Your task to perform on an android device: uninstall "Firefox Browser" Image 0: 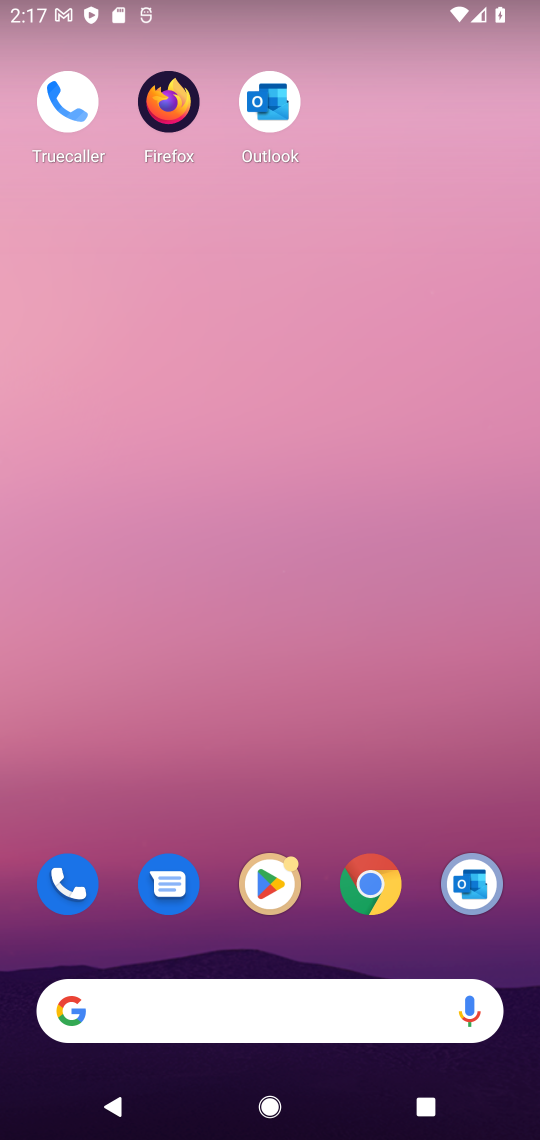
Step 0: click (265, 873)
Your task to perform on an android device: uninstall "Firefox Browser" Image 1: 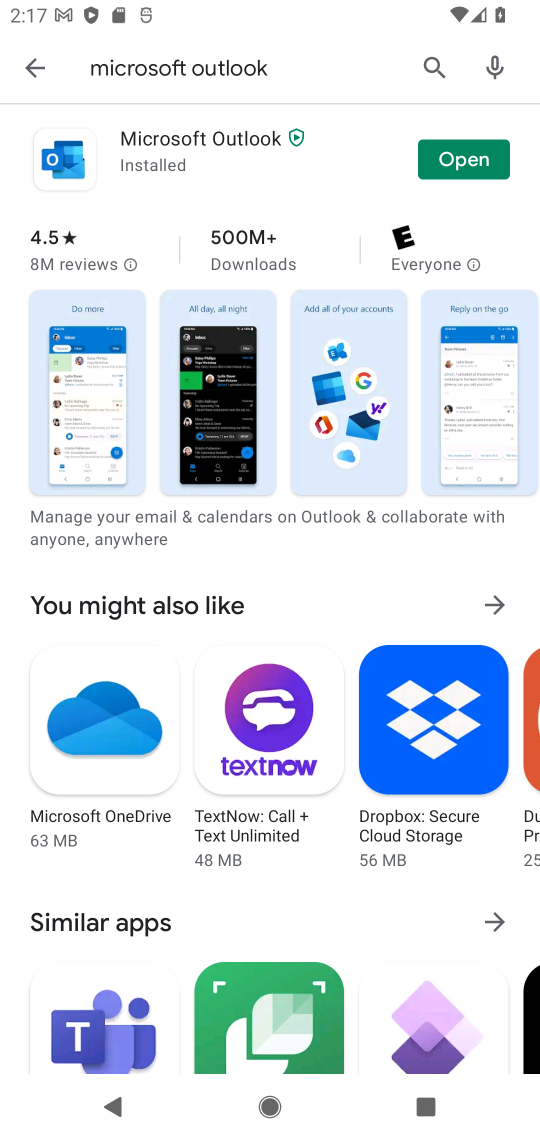
Step 1: click (429, 61)
Your task to perform on an android device: uninstall "Firefox Browser" Image 2: 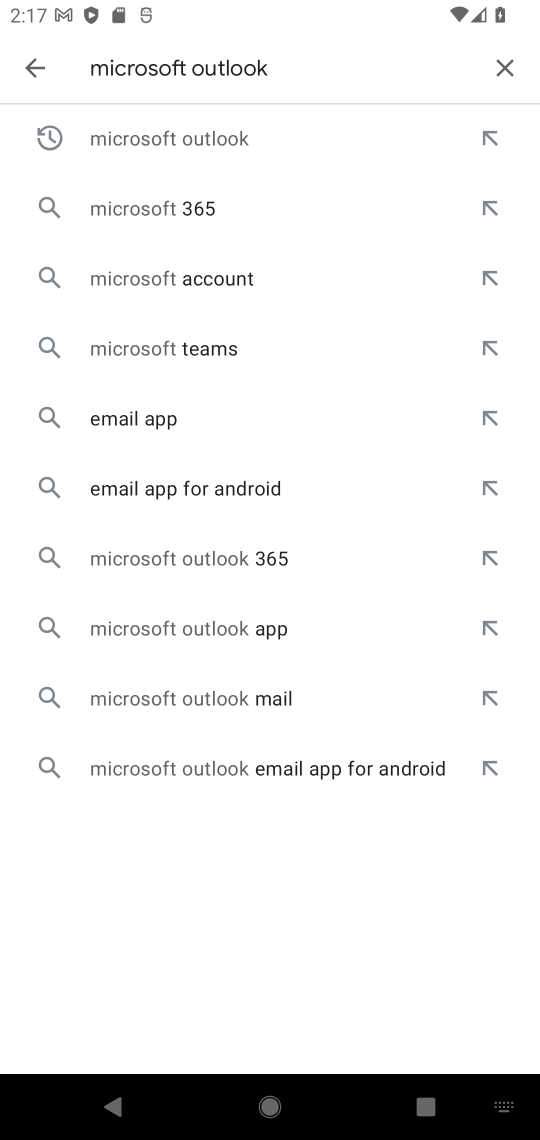
Step 2: click (509, 68)
Your task to perform on an android device: uninstall "Firefox Browser" Image 3: 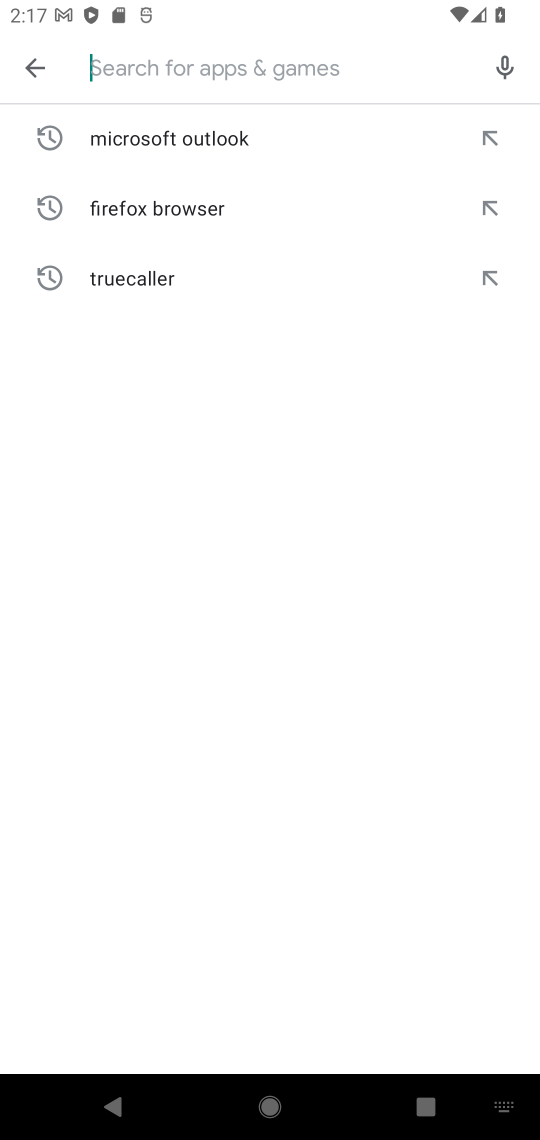
Step 3: click (192, 200)
Your task to perform on an android device: uninstall "Firefox Browser" Image 4: 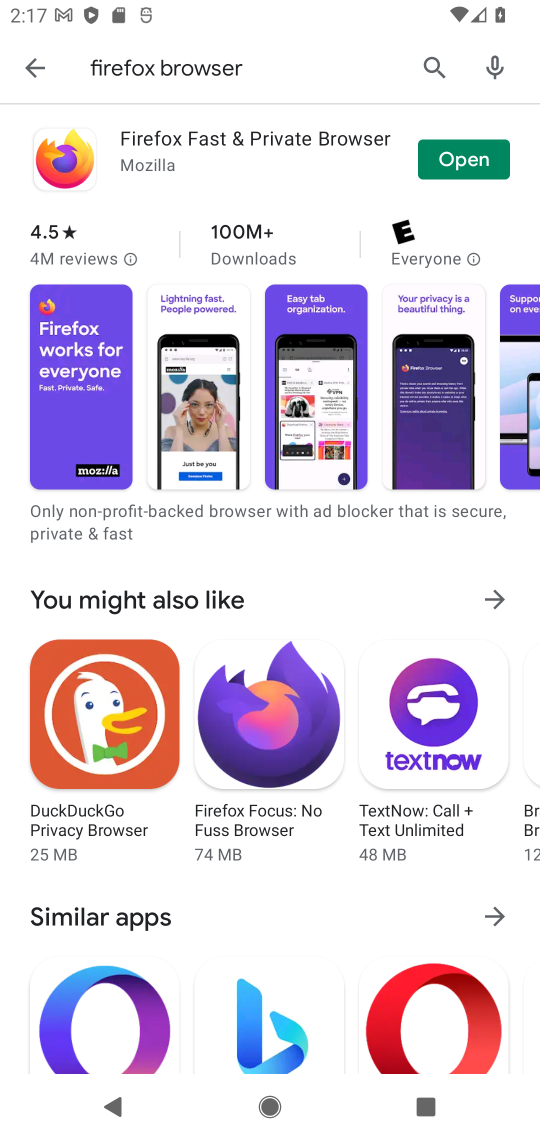
Step 4: click (217, 126)
Your task to perform on an android device: uninstall "Firefox Browser" Image 5: 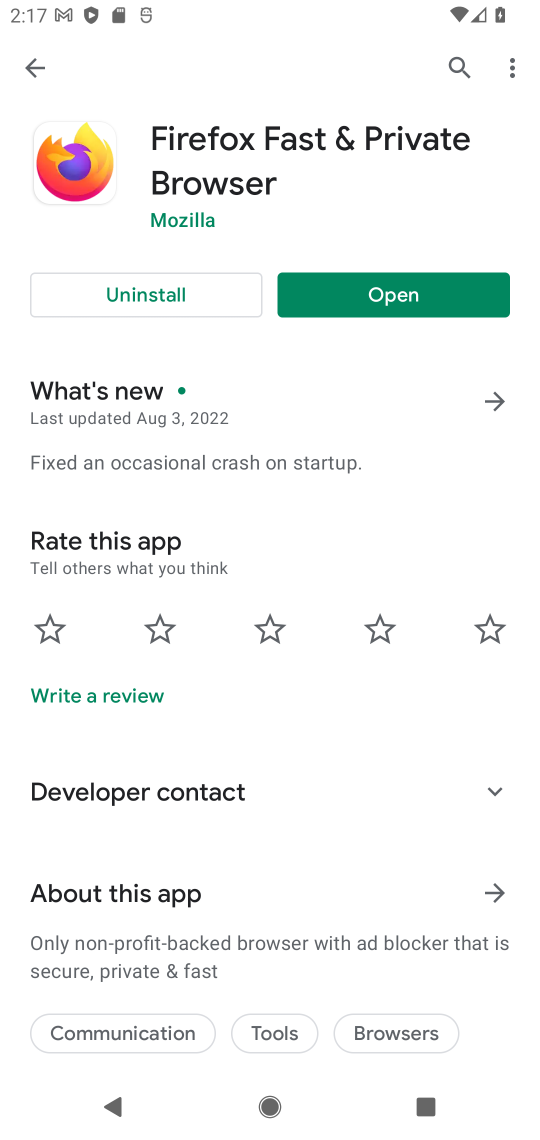
Step 5: click (128, 291)
Your task to perform on an android device: uninstall "Firefox Browser" Image 6: 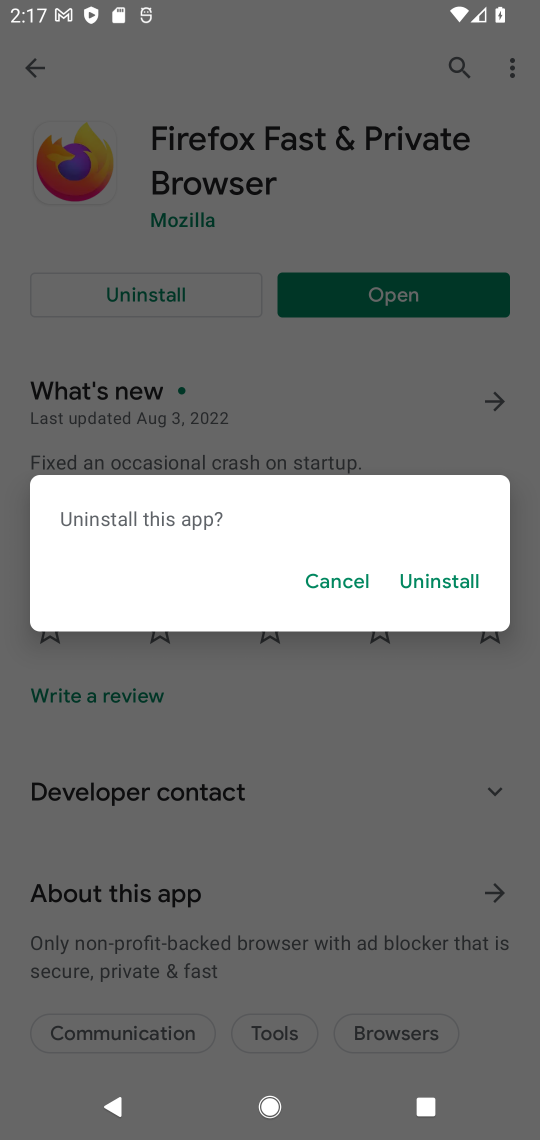
Step 6: click (438, 574)
Your task to perform on an android device: uninstall "Firefox Browser" Image 7: 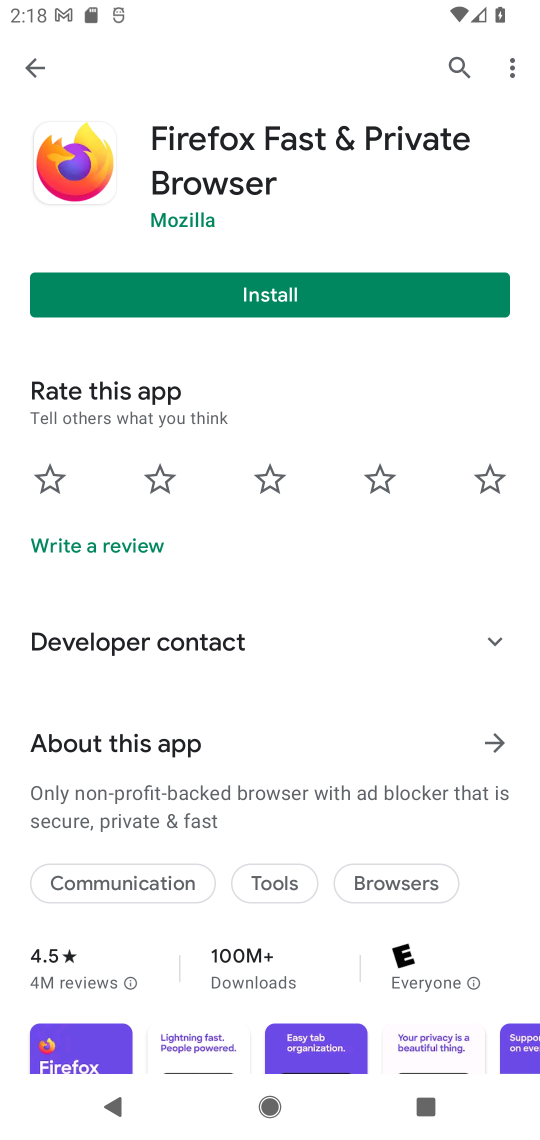
Step 7: task complete